Your task to perform on an android device: turn off smart reply in the gmail app Image 0: 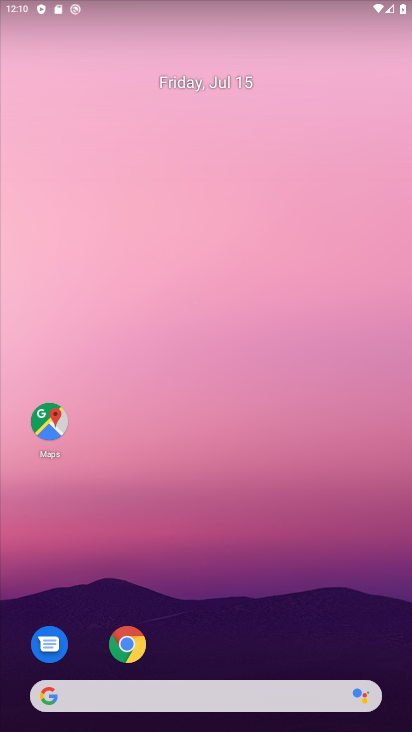
Step 0: drag from (229, 725) to (218, 316)
Your task to perform on an android device: turn off smart reply in the gmail app Image 1: 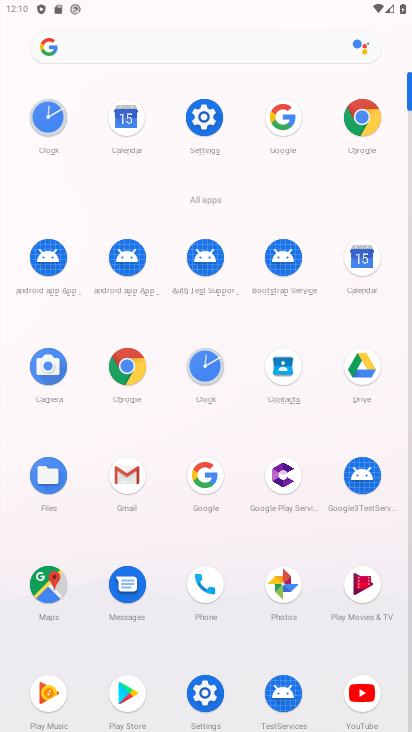
Step 1: click (138, 477)
Your task to perform on an android device: turn off smart reply in the gmail app Image 2: 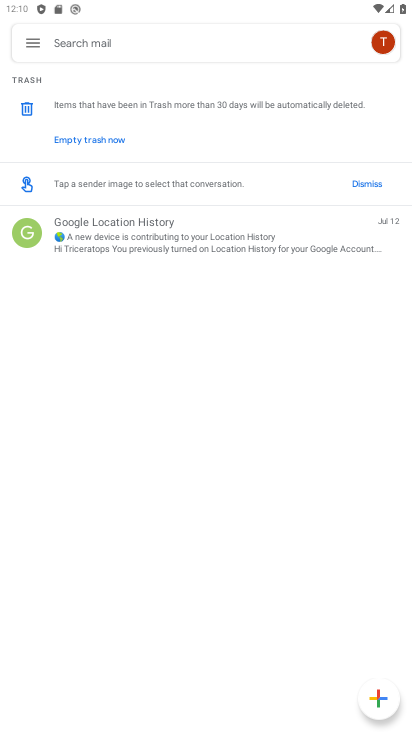
Step 2: click (34, 40)
Your task to perform on an android device: turn off smart reply in the gmail app Image 3: 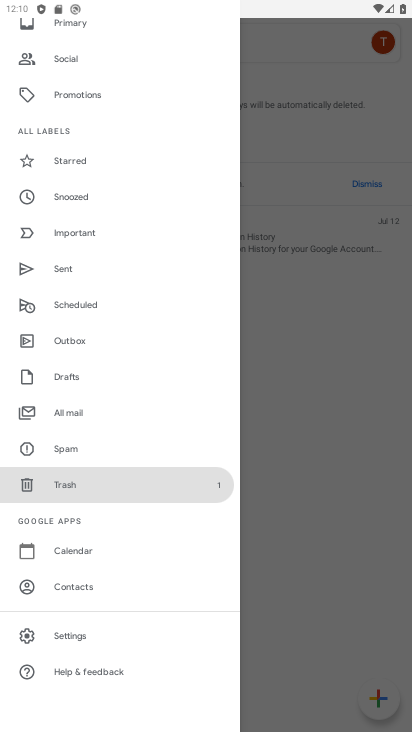
Step 3: click (77, 634)
Your task to perform on an android device: turn off smart reply in the gmail app Image 4: 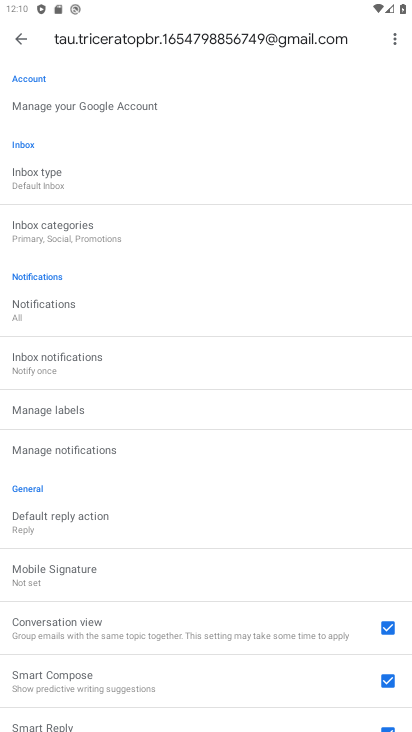
Step 4: drag from (85, 672) to (88, 454)
Your task to perform on an android device: turn off smart reply in the gmail app Image 5: 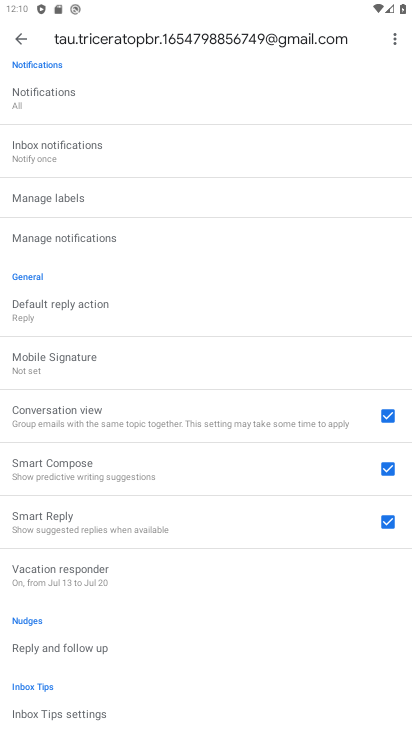
Step 5: click (392, 517)
Your task to perform on an android device: turn off smart reply in the gmail app Image 6: 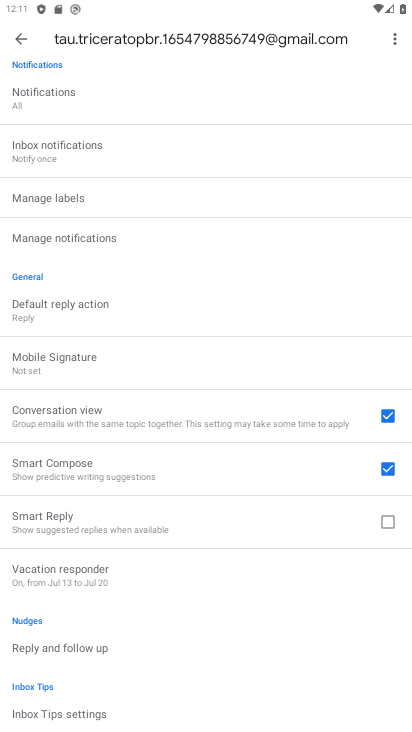
Step 6: task complete